Your task to perform on an android device: Open Maps and search for coffee Image 0: 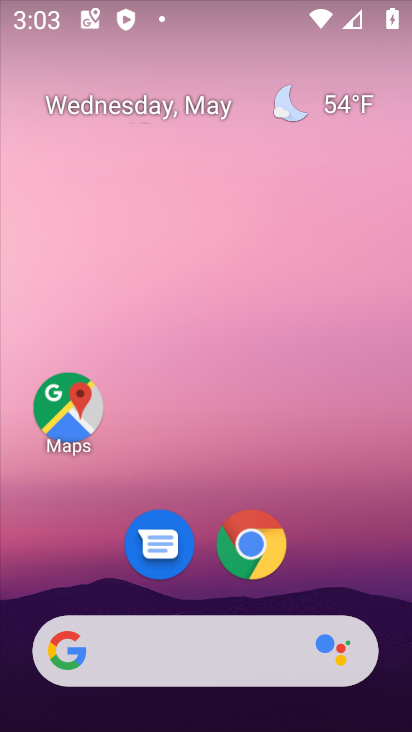
Step 0: drag from (345, 586) to (320, 90)
Your task to perform on an android device: Open Maps and search for coffee Image 1: 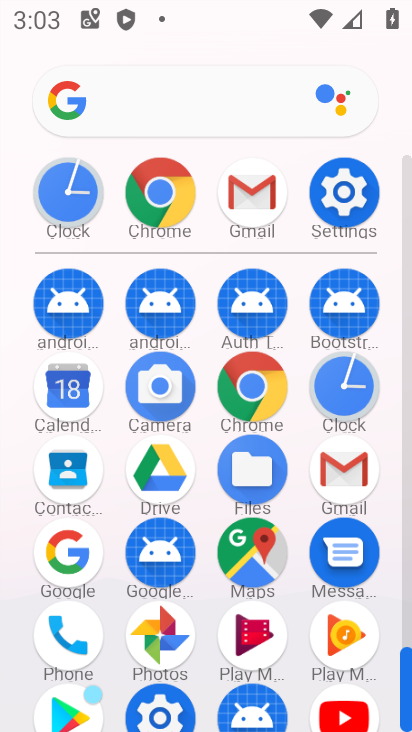
Step 1: click (258, 546)
Your task to perform on an android device: Open Maps and search for coffee Image 2: 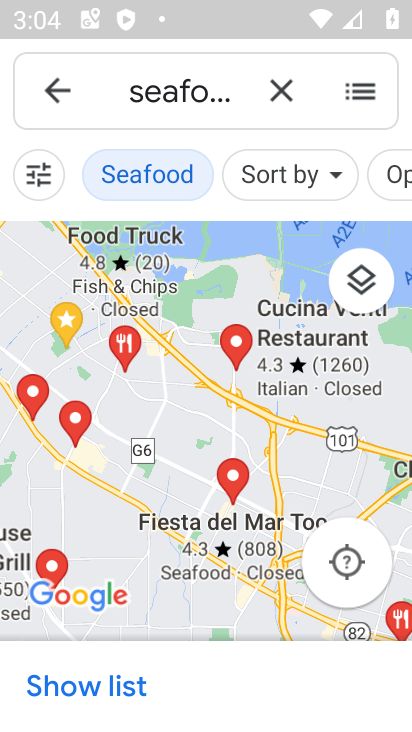
Step 2: click (259, 96)
Your task to perform on an android device: Open Maps and search for coffee Image 3: 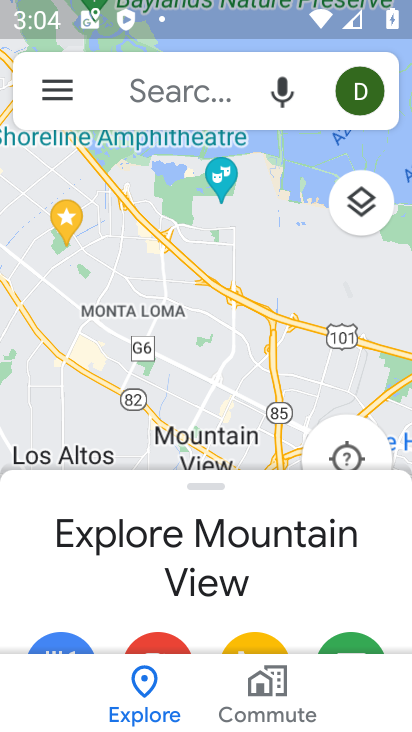
Step 3: click (205, 86)
Your task to perform on an android device: Open Maps and search for coffee Image 4: 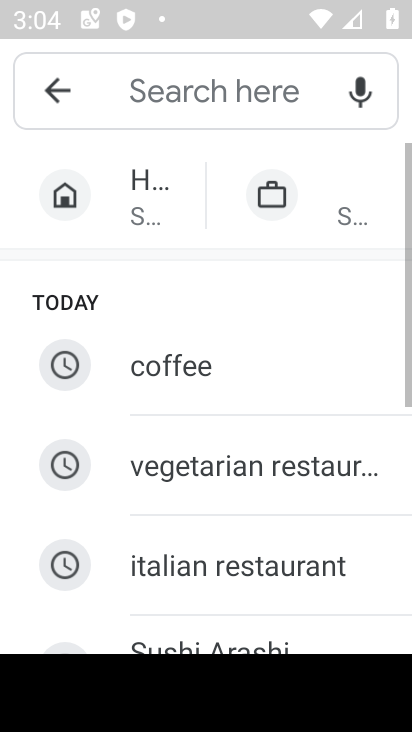
Step 4: click (231, 386)
Your task to perform on an android device: Open Maps and search for coffee Image 5: 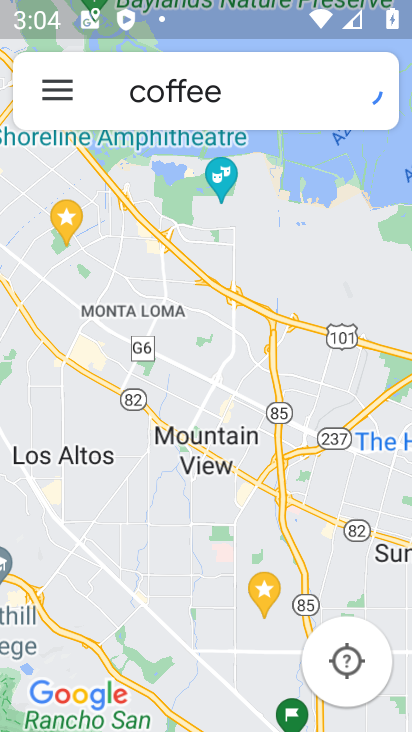
Step 5: task complete